Your task to perform on an android device: create a new album in the google photos Image 0: 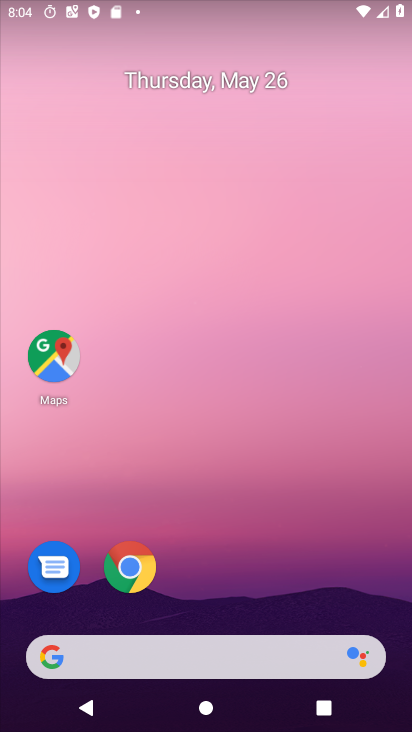
Step 0: press home button
Your task to perform on an android device: create a new album in the google photos Image 1: 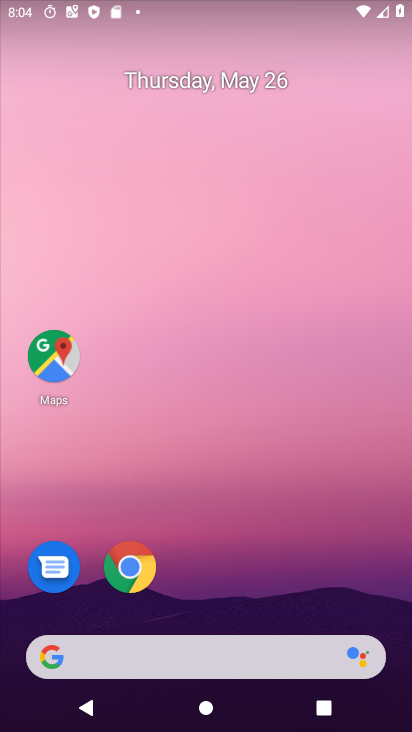
Step 1: drag from (144, 651) to (314, 94)
Your task to perform on an android device: create a new album in the google photos Image 2: 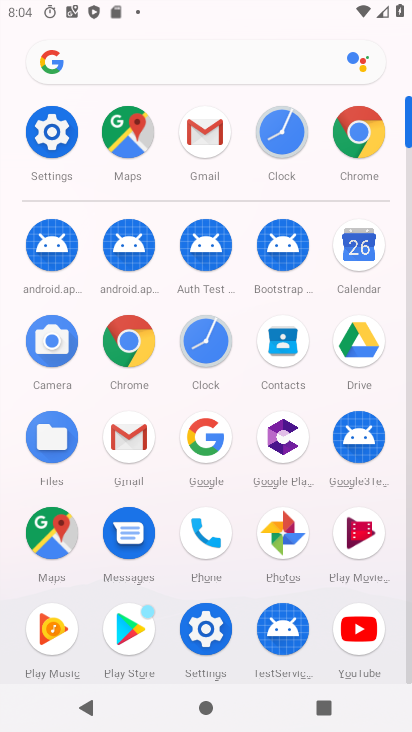
Step 2: click (287, 532)
Your task to perform on an android device: create a new album in the google photos Image 3: 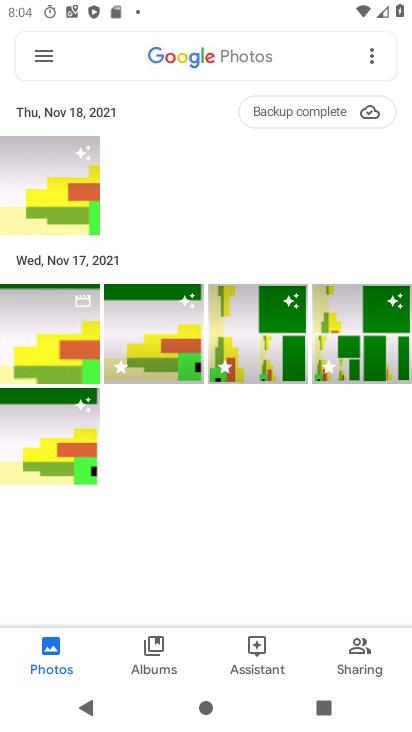
Step 3: click (153, 662)
Your task to perform on an android device: create a new album in the google photos Image 4: 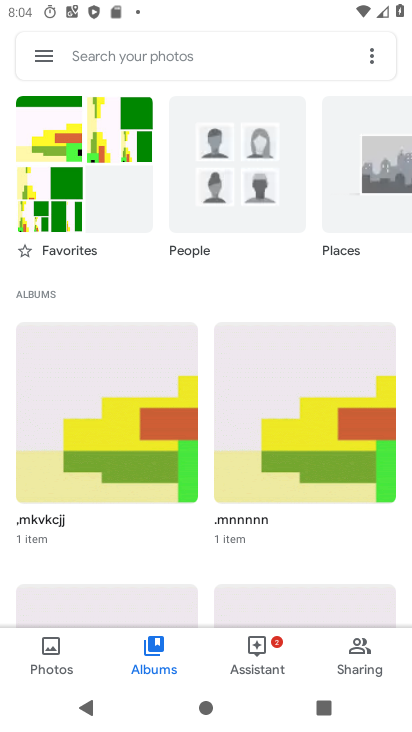
Step 4: click (367, 55)
Your task to perform on an android device: create a new album in the google photos Image 5: 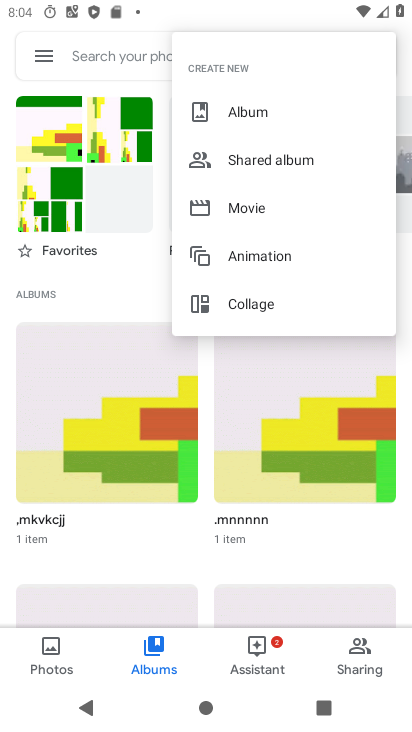
Step 5: click (241, 105)
Your task to perform on an android device: create a new album in the google photos Image 6: 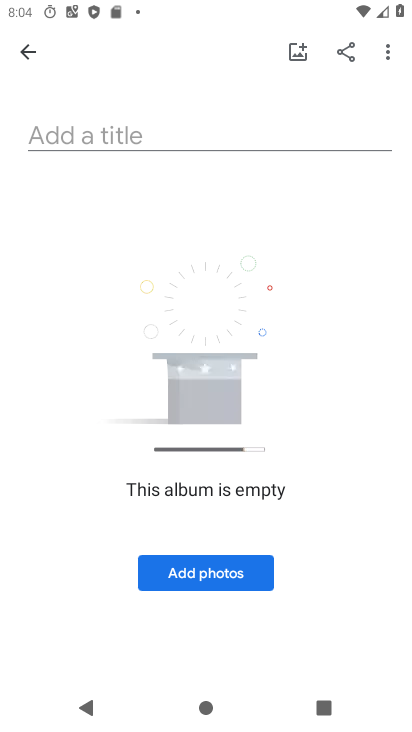
Step 6: click (196, 571)
Your task to perform on an android device: create a new album in the google photos Image 7: 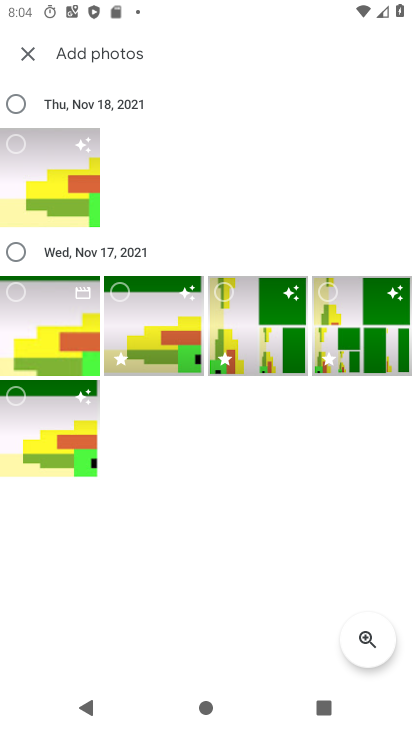
Step 7: click (59, 178)
Your task to perform on an android device: create a new album in the google photos Image 8: 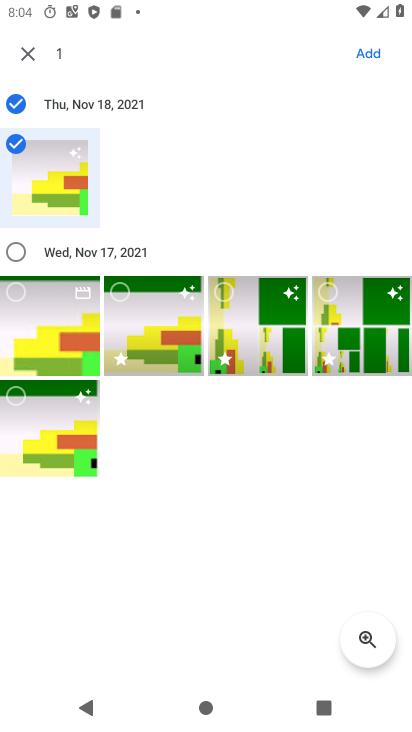
Step 8: click (38, 305)
Your task to perform on an android device: create a new album in the google photos Image 9: 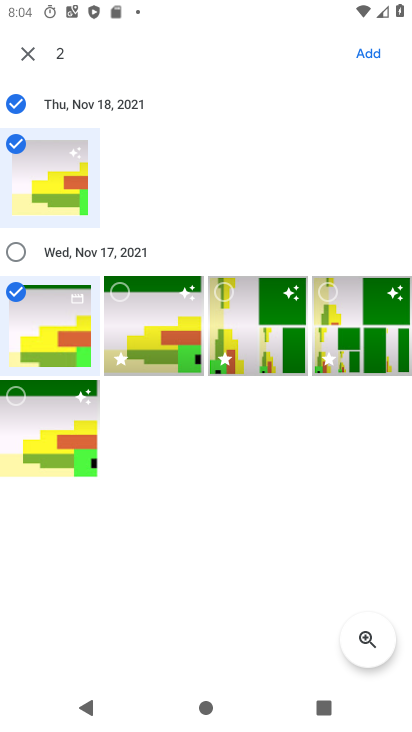
Step 9: click (128, 323)
Your task to perform on an android device: create a new album in the google photos Image 10: 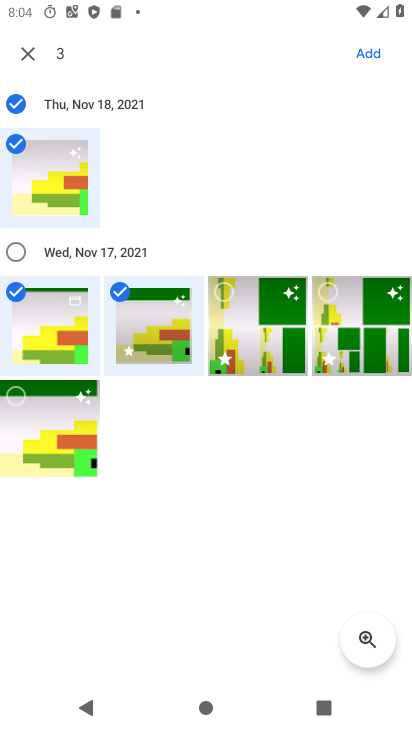
Step 10: click (252, 316)
Your task to perform on an android device: create a new album in the google photos Image 11: 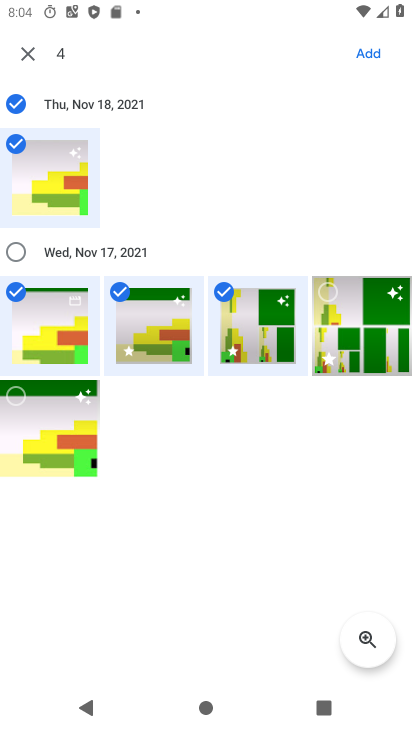
Step 11: click (366, 58)
Your task to perform on an android device: create a new album in the google photos Image 12: 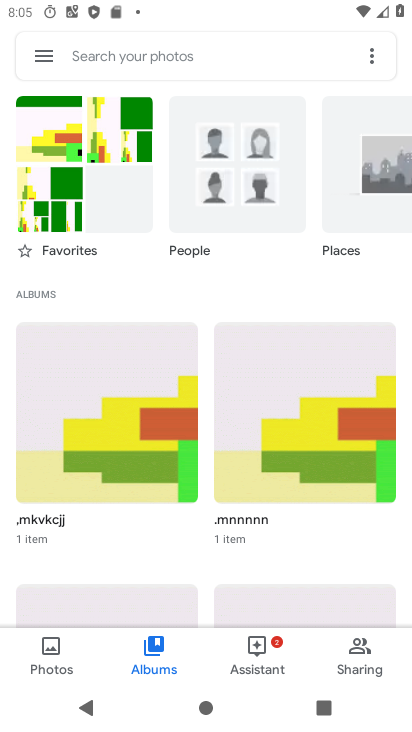
Step 12: task complete